Your task to perform on an android device: Open Maps and search for coffee Image 0: 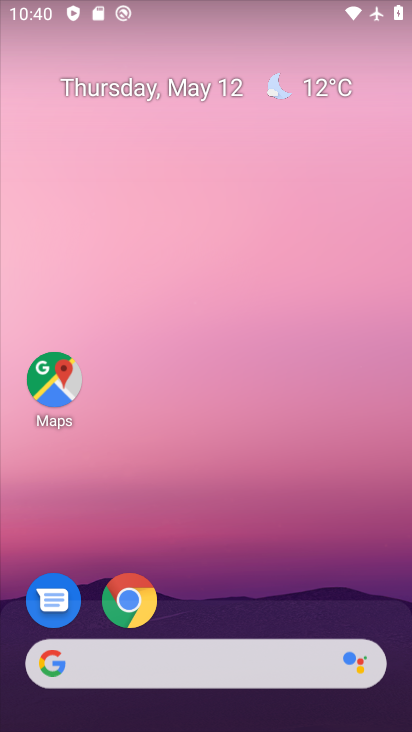
Step 0: click (68, 387)
Your task to perform on an android device: Open Maps and search for coffee Image 1: 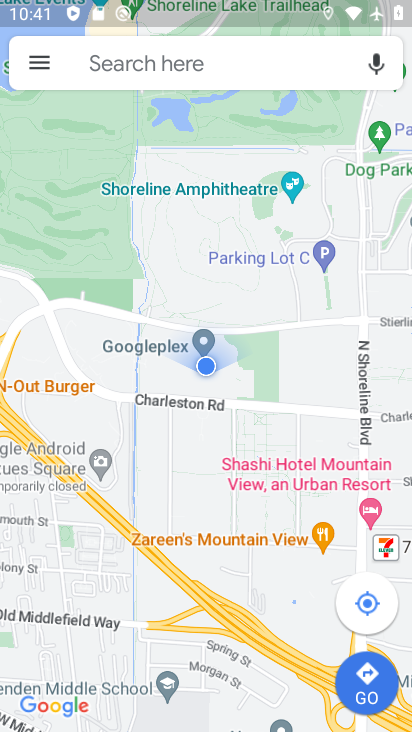
Step 1: click (154, 57)
Your task to perform on an android device: Open Maps and search for coffee Image 2: 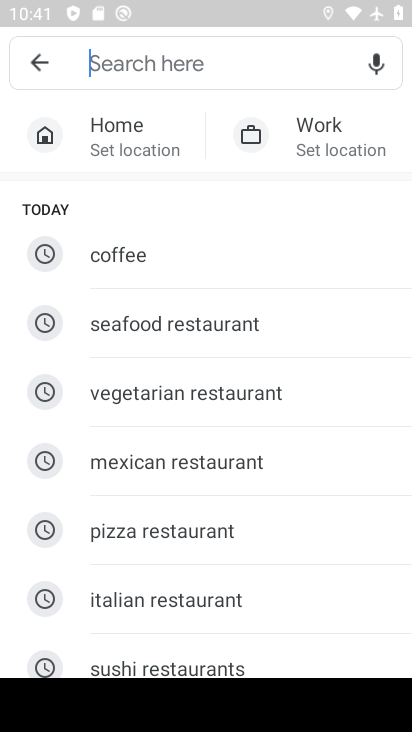
Step 2: click (102, 256)
Your task to perform on an android device: Open Maps and search for coffee Image 3: 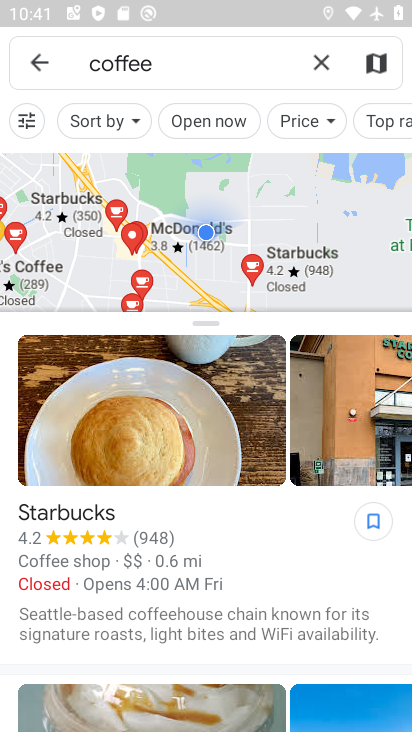
Step 3: task complete